Your task to perform on an android device: change the clock display to digital Image 0: 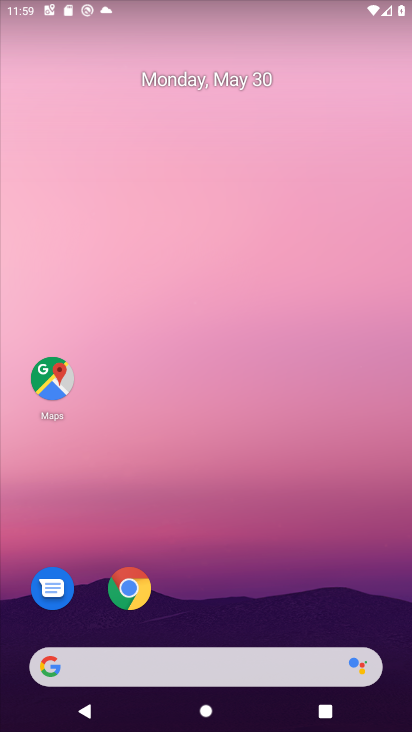
Step 0: drag from (191, 469) to (110, 70)
Your task to perform on an android device: change the clock display to digital Image 1: 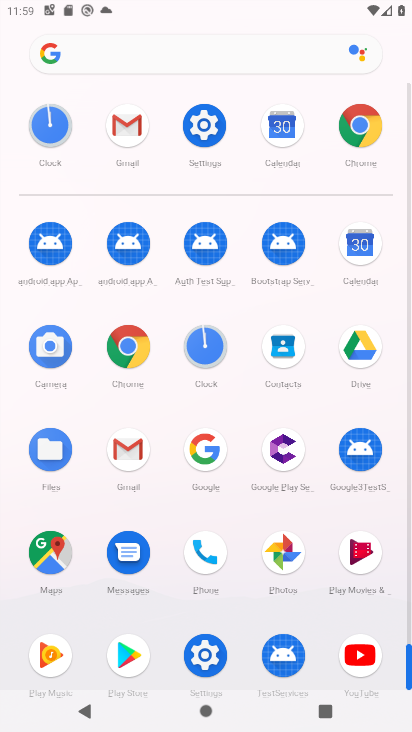
Step 1: click (226, 352)
Your task to perform on an android device: change the clock display to digital Image 2: 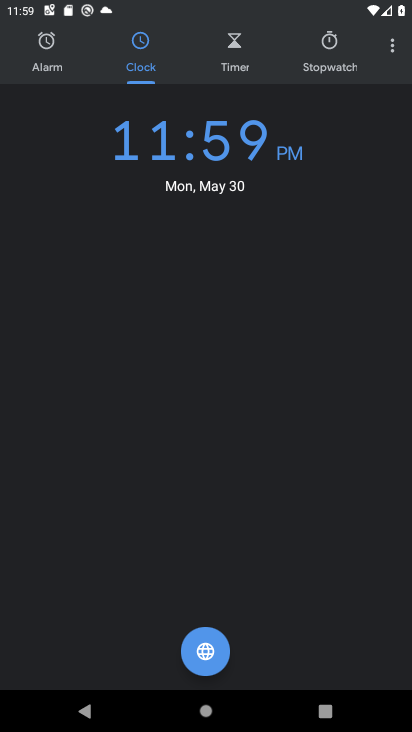
Step 2: click (390, 42)
Your task to perform on an android device: change the clock display to digital Image 3: 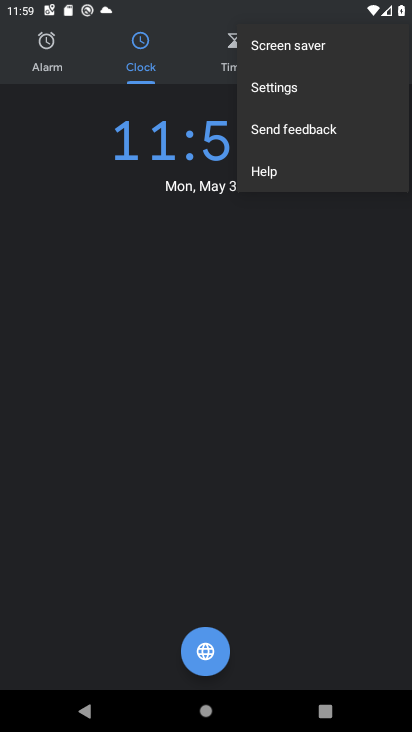
Step 3: click (265, 99)
Your task to perform on an android device: change the clock display to digital Image 4: 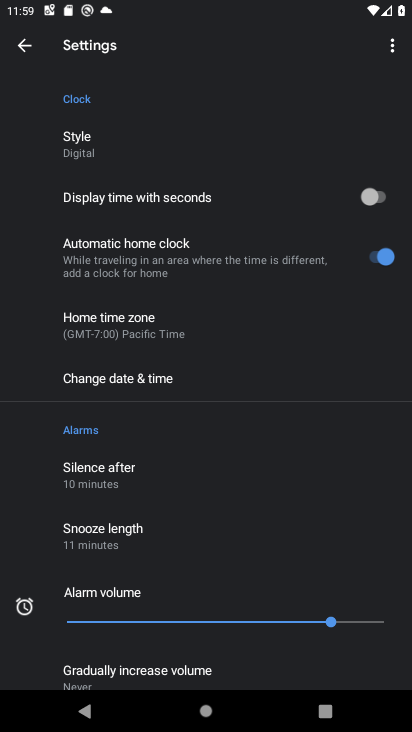
Step 4: task complete